Your task to perform on an android device: toggle notifications settings in the gmail app Image 0: 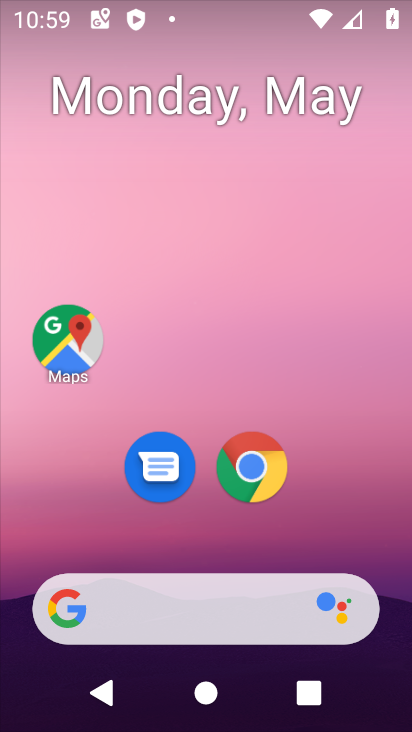
Step 0: drag from (329, 536) to (383, 7)
Your task to perform on an android device: toggle notifications settings in the gmail app Image 1: 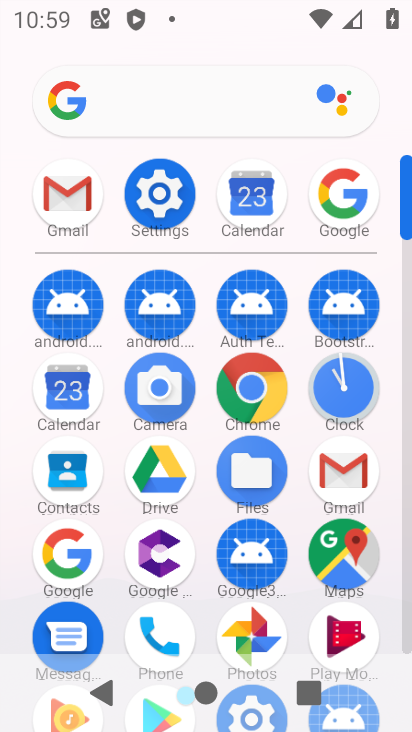
Step 1: click (348, 470)
Your task to perform on an android device: toggle notifications settings in the gmail app Image 2: 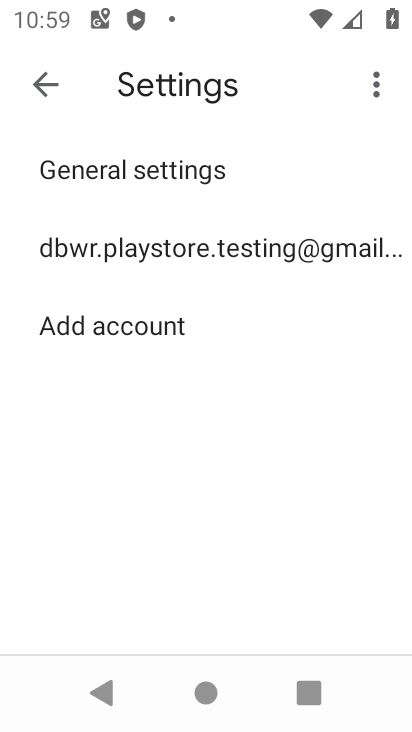
Step 2: click (181, 256)
Your task to perform on an android device: toggle notifications settings in the gmail app Image 3: 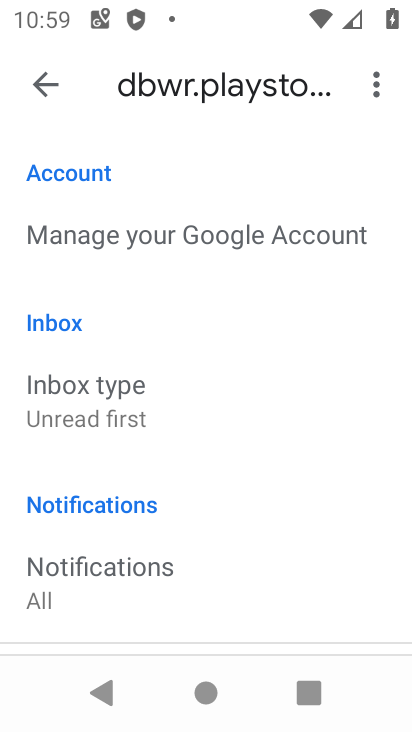
Step 3: drag from (171, 563) to (198, 351)
Your task to perform on an android device: toggle notifications settings in the gmail app Image 4: 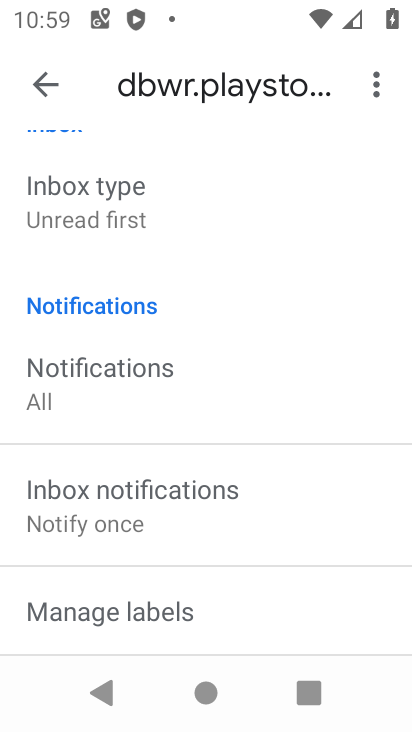
Step 4: drag from (140, 575) to (153, 333)
Your task to perform on an android device: toggle notifications settings in the gmail app Image 5: 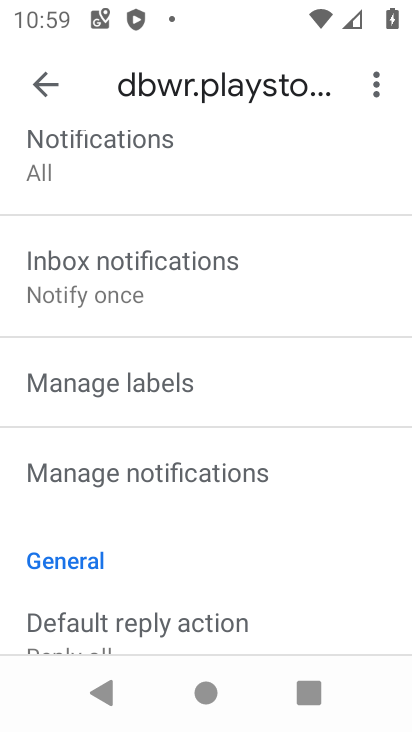
Step 5: click (159, 479)
Your task to perform on an android device: toggle notifications settings in the gmail app Image 6: 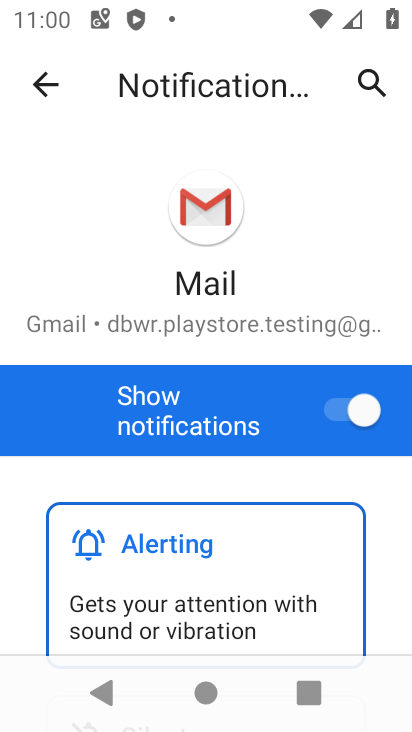
Step 6: click (363, 402)
Your task to perform on an android device: toggle notifications settings in the gmail app Image 7: 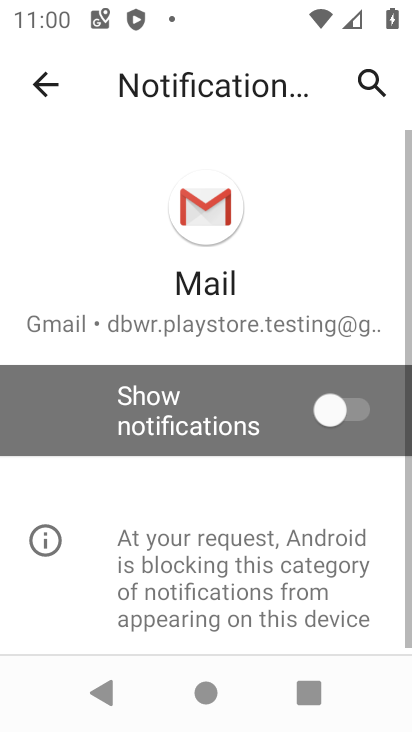
Step 7: task complete